Your task to perform on an android device: Go to accessibility settings Image 0: 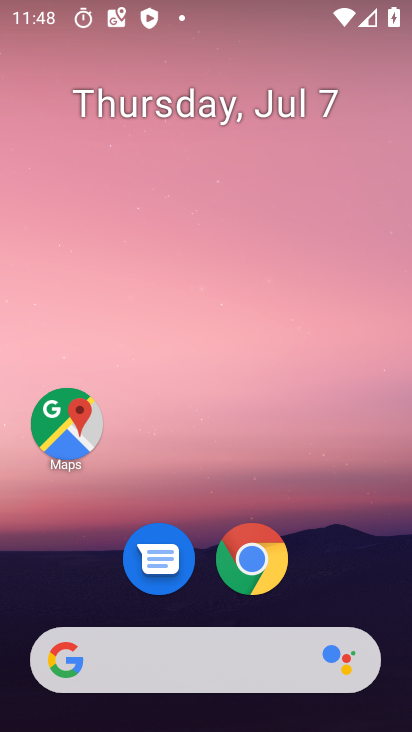
Step 0: drag from (355, 537) to (372, 127)
Your task to perform on an android device: Go to accessibility settings Image 1: 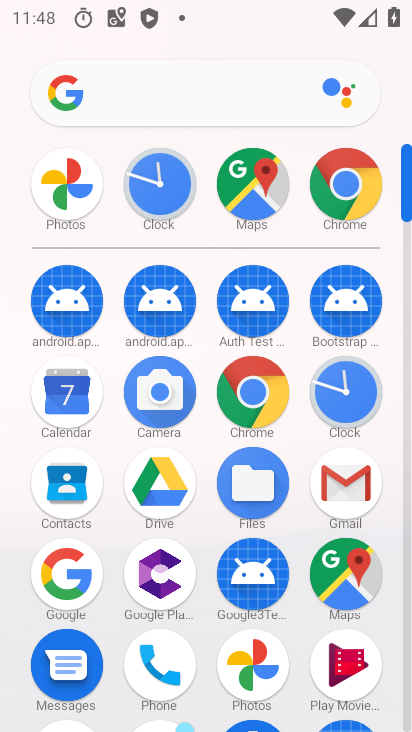
Step 1: drag from (209, 516) to (198, 263)
Your task to perform on an android device: Go to accessibility settings Image 2: 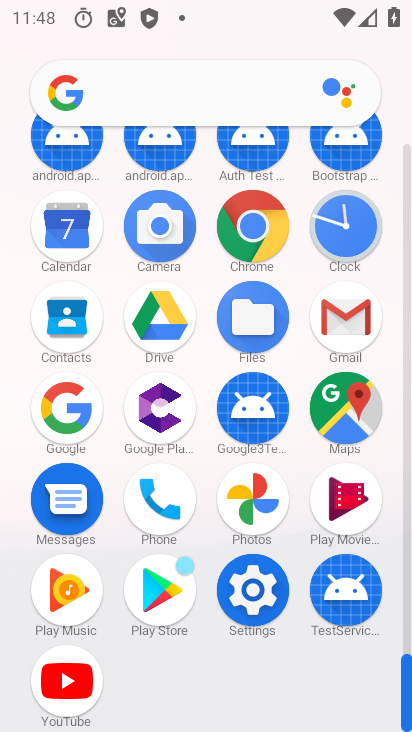
Step 2: click (267, 578)
Your task to perform on an android device: Go to accessibility settings Image 3: 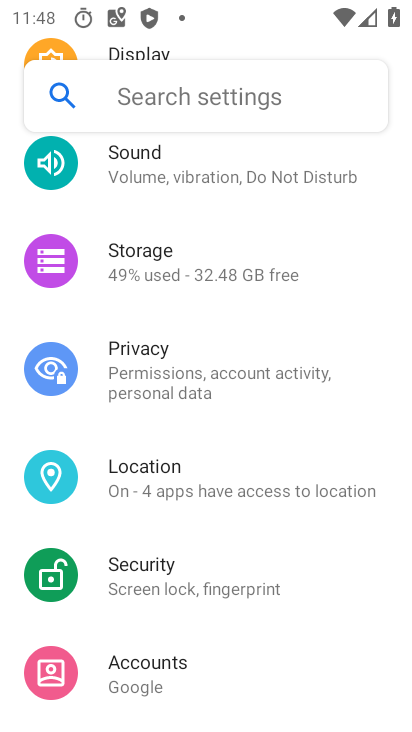
Step 3: drag from (343, 282) to (351, 397)
Your task to perform on an android device: Go to accessibility settings Image 4: 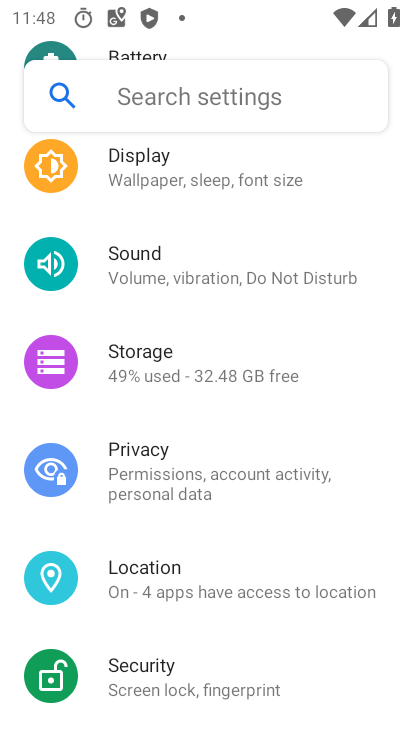
Step 4: drag from (366, 230) to (367, 389)
Your task to perform on an android device: Go to accessibility settings Image 5: 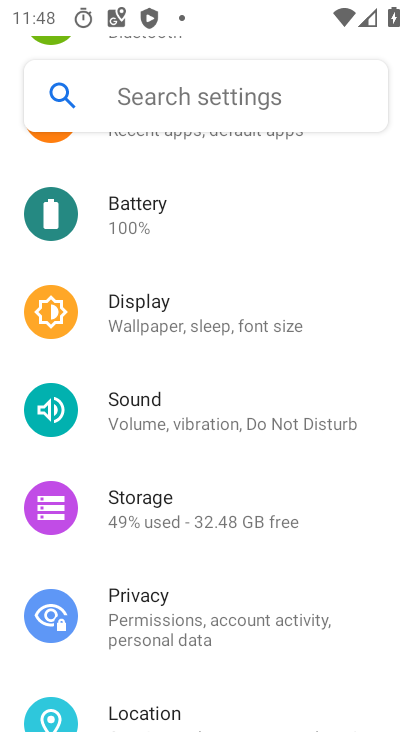
Step 5: drag from (364, 193) to (362, 377)
Your task to perform on an android device: Go to accessibility settings Image 6: 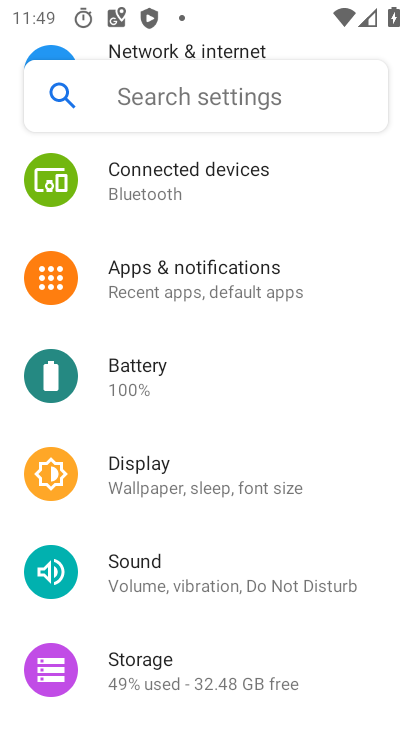
Step 6: drag from (354, 272) to (382, 511)
Your task to perform on an android device: Go to accessibility settings Image 7: 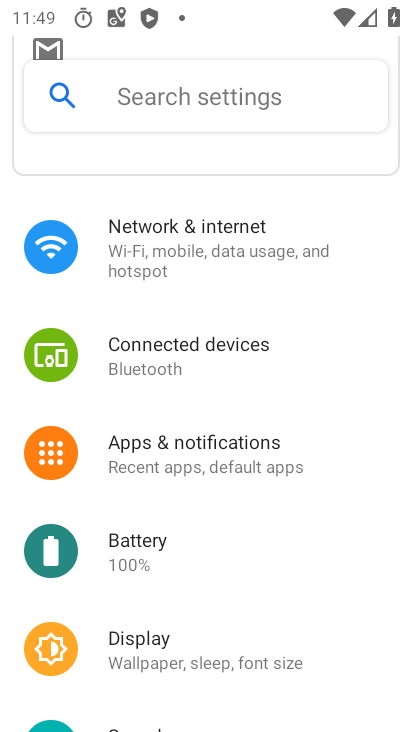
Step 7: drag from (349, 552) to (349, 407)
Your task to perform on an android device: Go to accessibility settings Image 8: 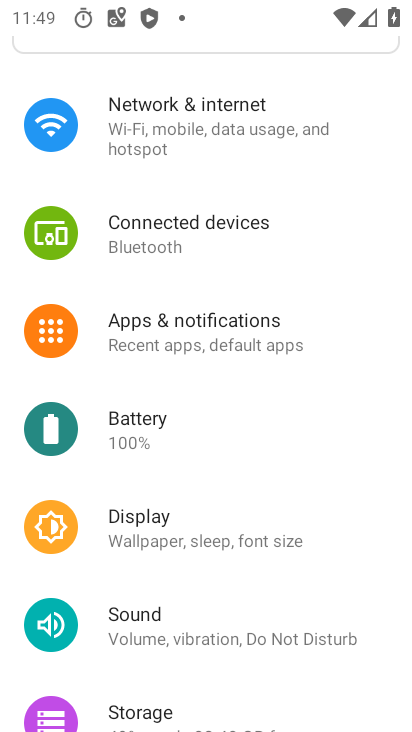
Step 8: drag from (365, 504) to (349, 330)
Your task to perform on an android device: Go to accessibility settings Image 9: 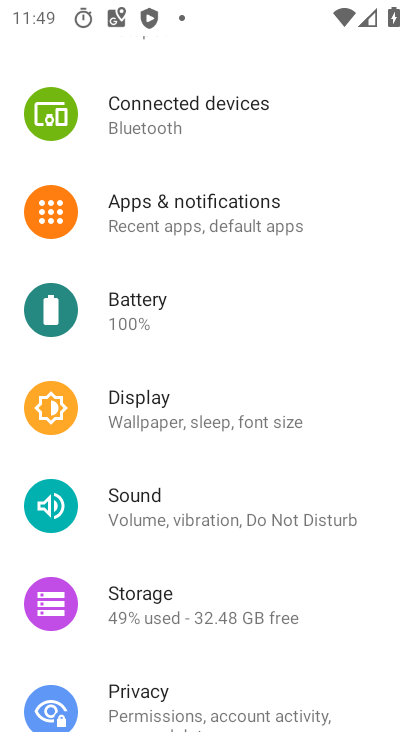
Step 9: drag from (340, 577) to (342, 415)
Your task to perform on an android device: Go to accessibility settings Image 10: 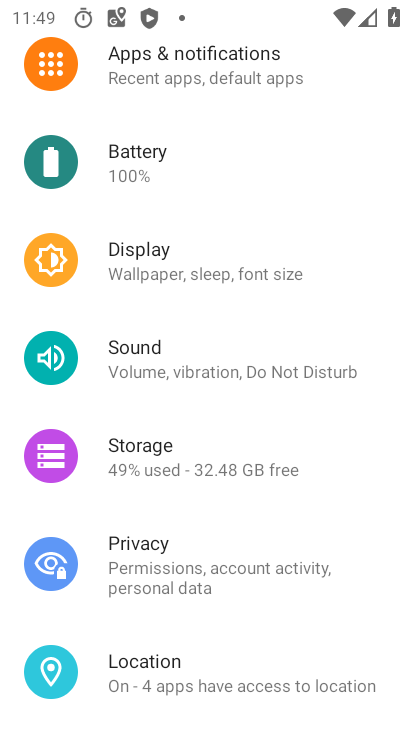
Step 10: drag from (358, 562) to (369, 420)
Your task to perform on an android device: Go to accessibility settings Image 11: 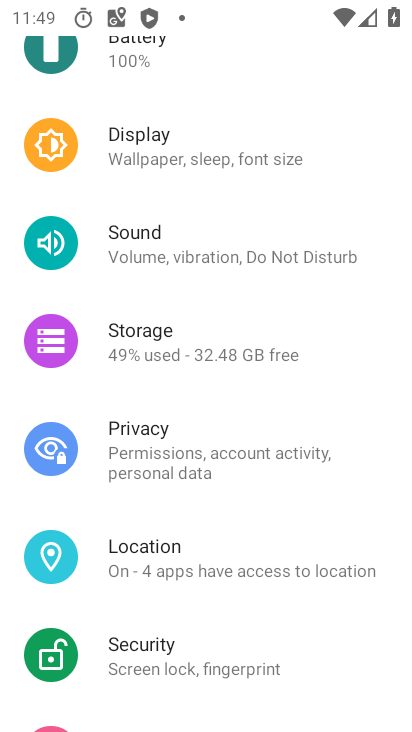
Step 11: drag from (330, 625) to (344, 434)
Your task to perform on an android device: Go to accessibility settings Image 12: 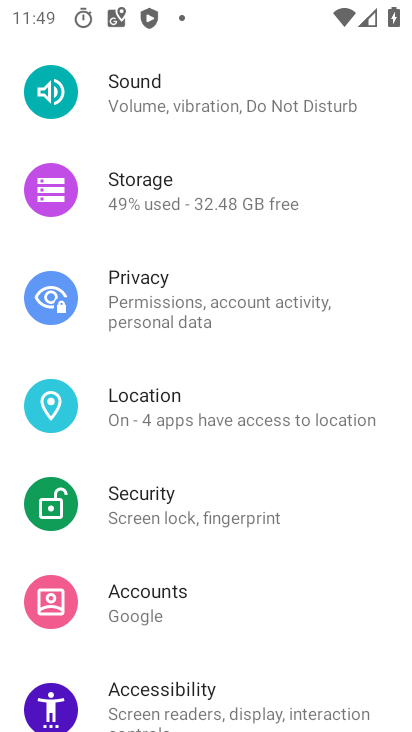
Step 12: click (284, 694)
Your task to perform on an android device: Go to accessibility settings Image 13: 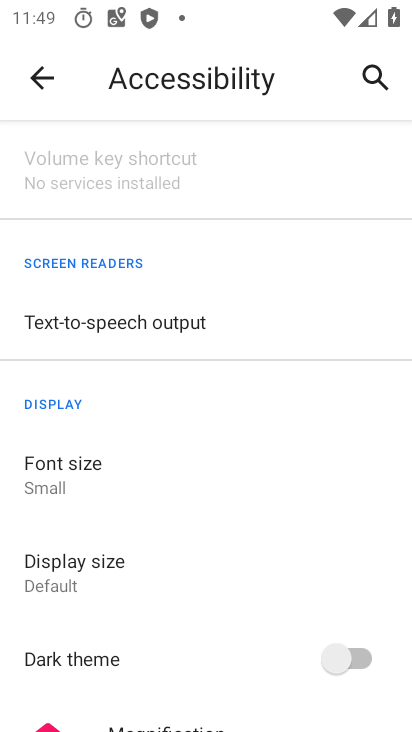
Step 13: task complete